Your task to perform on an android device: Clear all items from cart on amazon.com. Add "usb-c" to the cart on amazon.com Image 0: 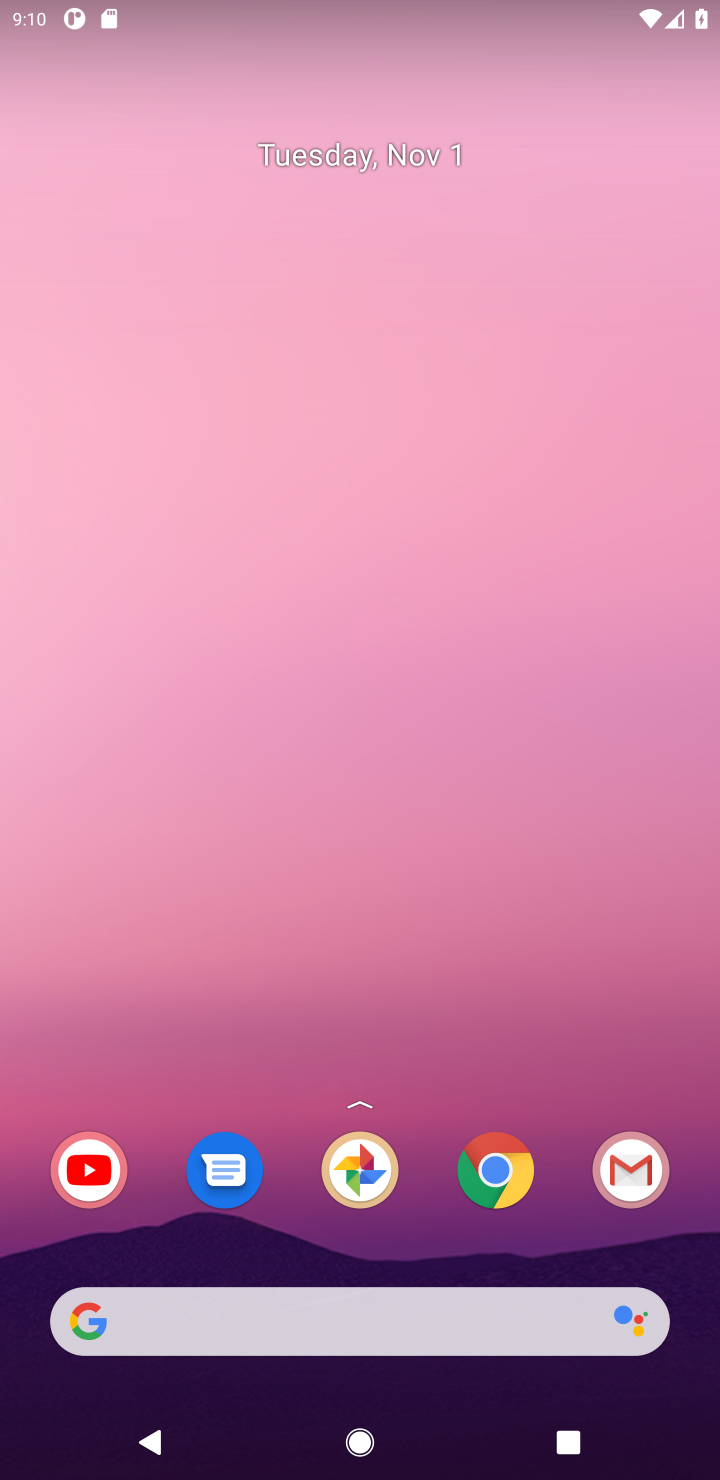
Step 0: click (493, 1173)
Your task to perform on an android device: Clear all items from cart on amazon.com. Add "usb-c" to the cart on amazon.com Image 1: 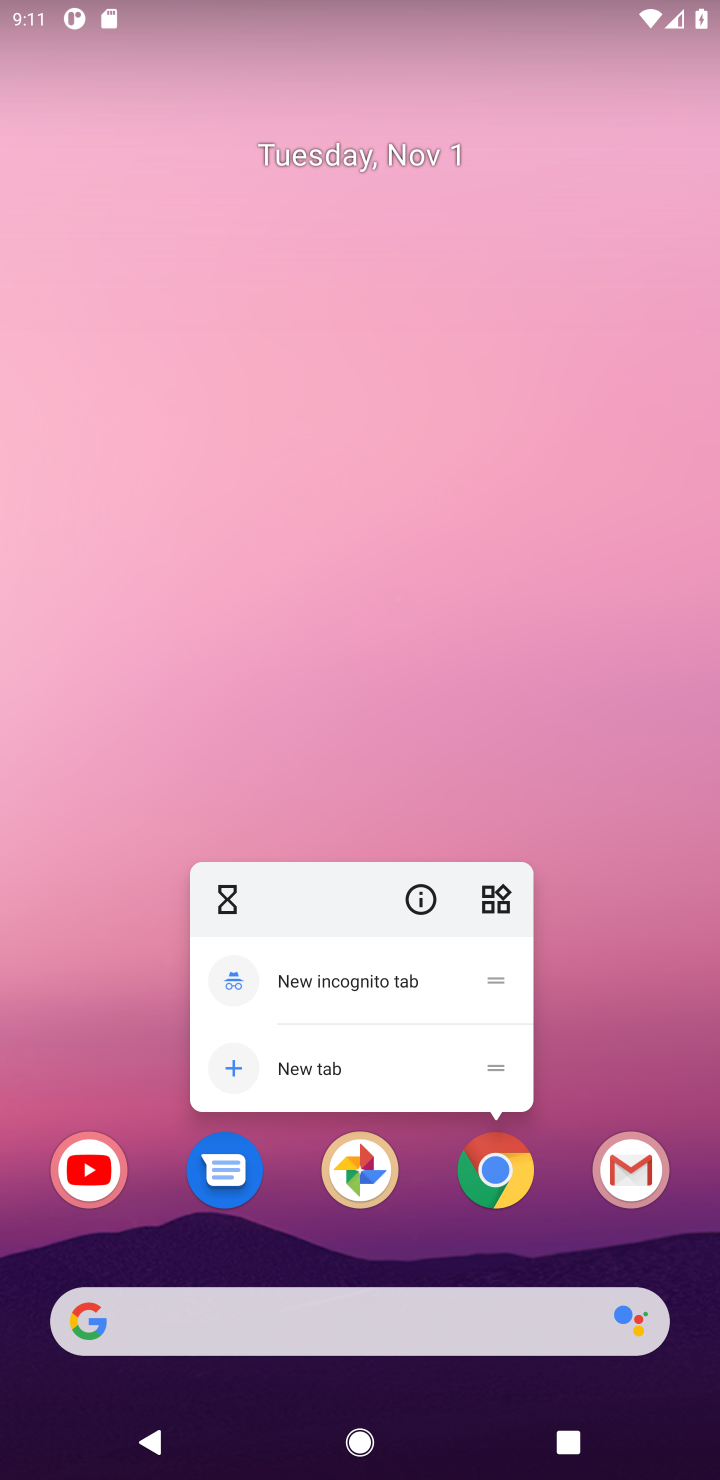
Step 1: click (518, 1167)
Your task to perform on an android device: Clear all items from cart on amazon.com. Add "usb-c" to the cart on amazon.com Image 2: 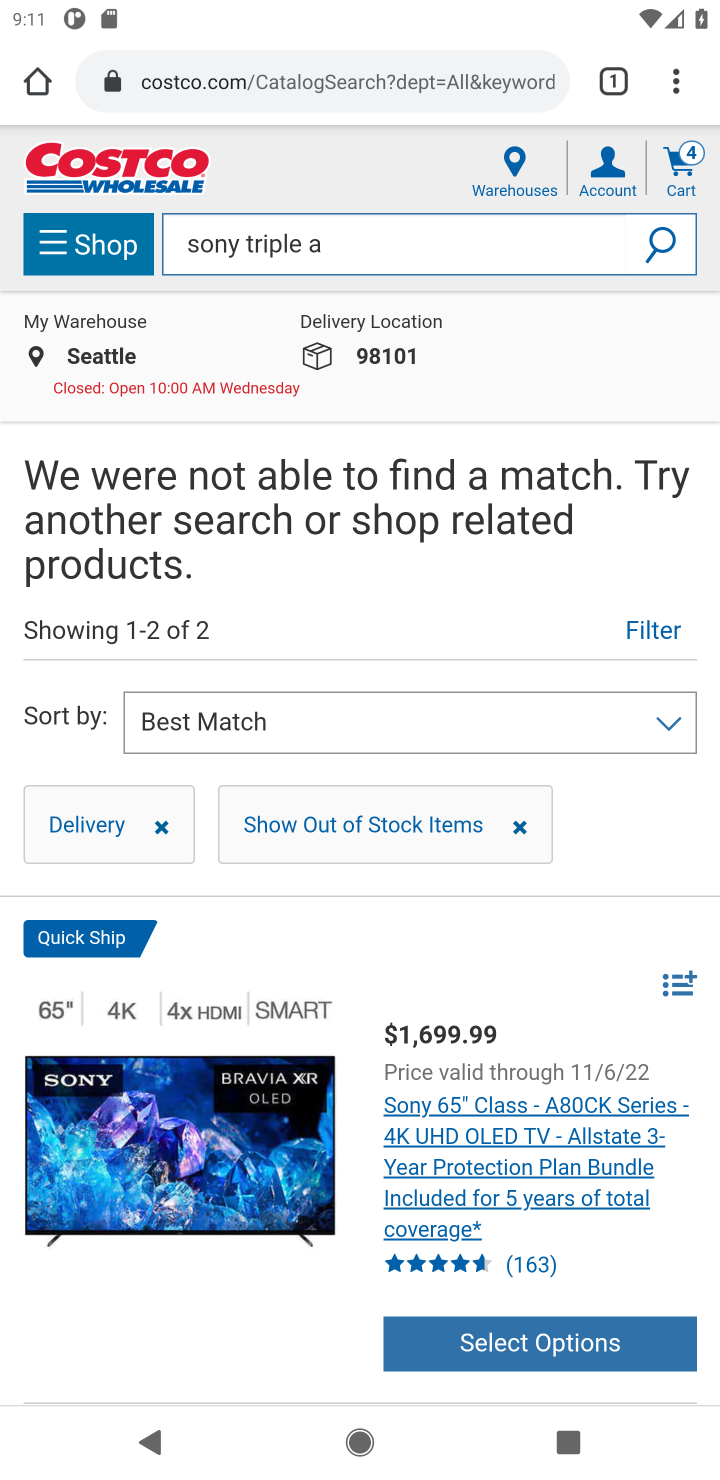
Step 2: click (391, 88)
Your task to perform on an android device: Clear all items from cart on amazon.com. Add "usb-c" to the cart on amazon.com Image 3: 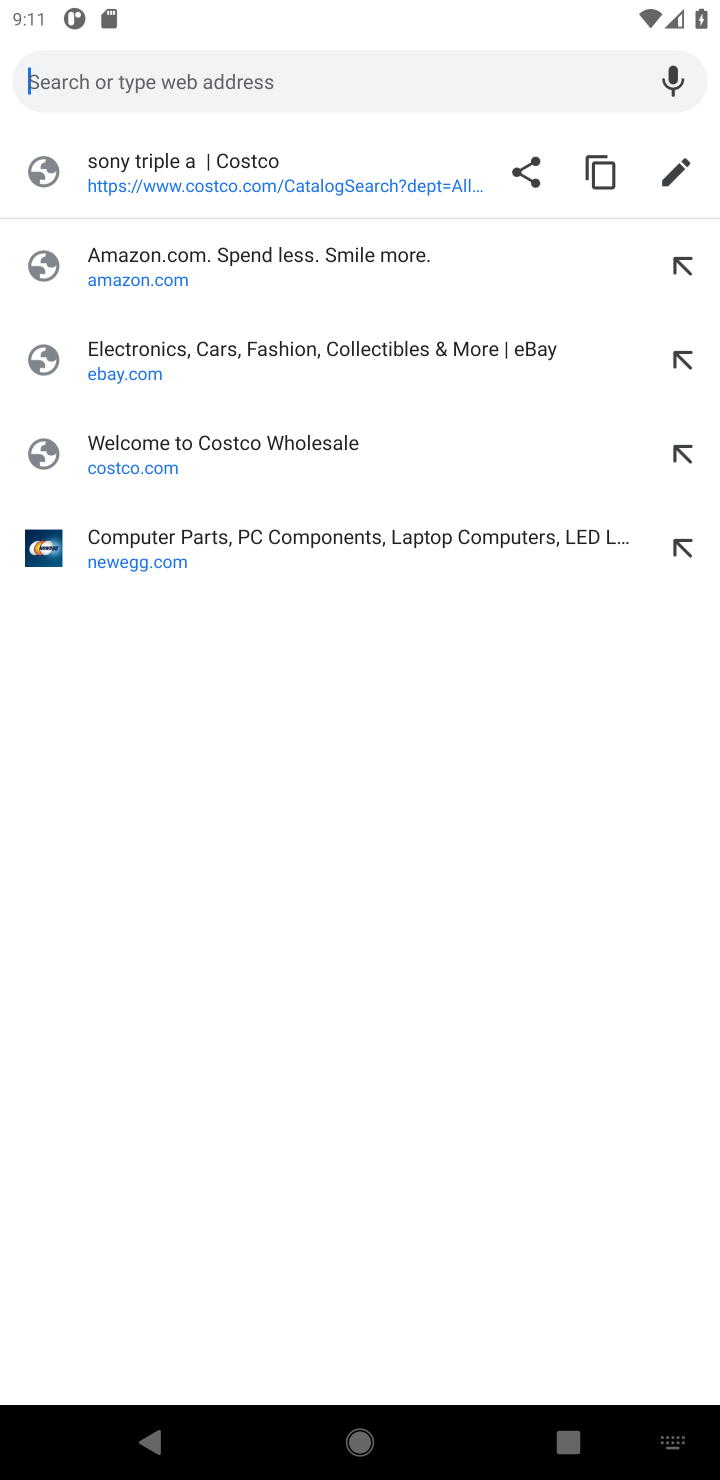
Step 3: type "amazon.com"
Your task to perform on an android device: Clear all items from cart on amazon.com. Add "usb-c" to the cart on amazon.com Image 4: 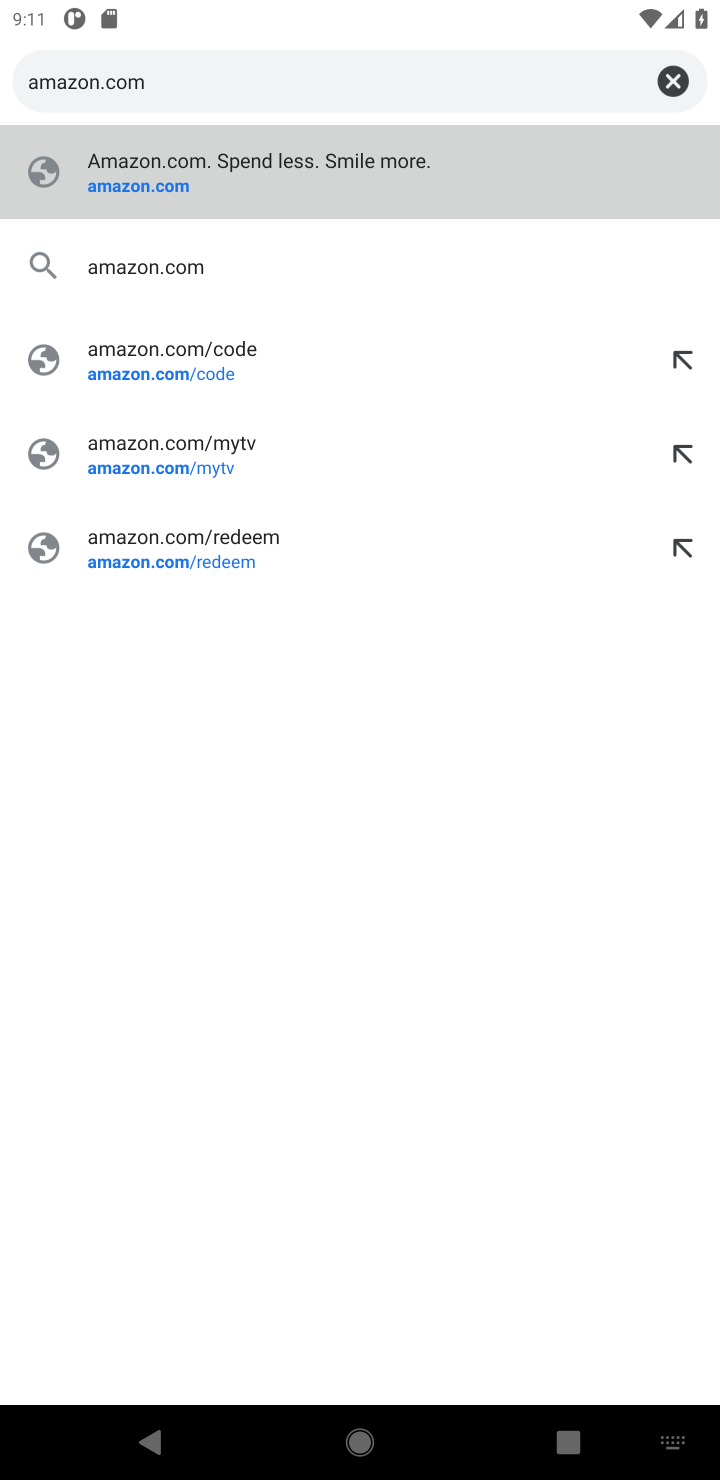
Step 4: press enter
Your task to perform on an android device: Clear all items from cart on amazon.com. Add "usb-c" to the cart on amazon.com Image 5: 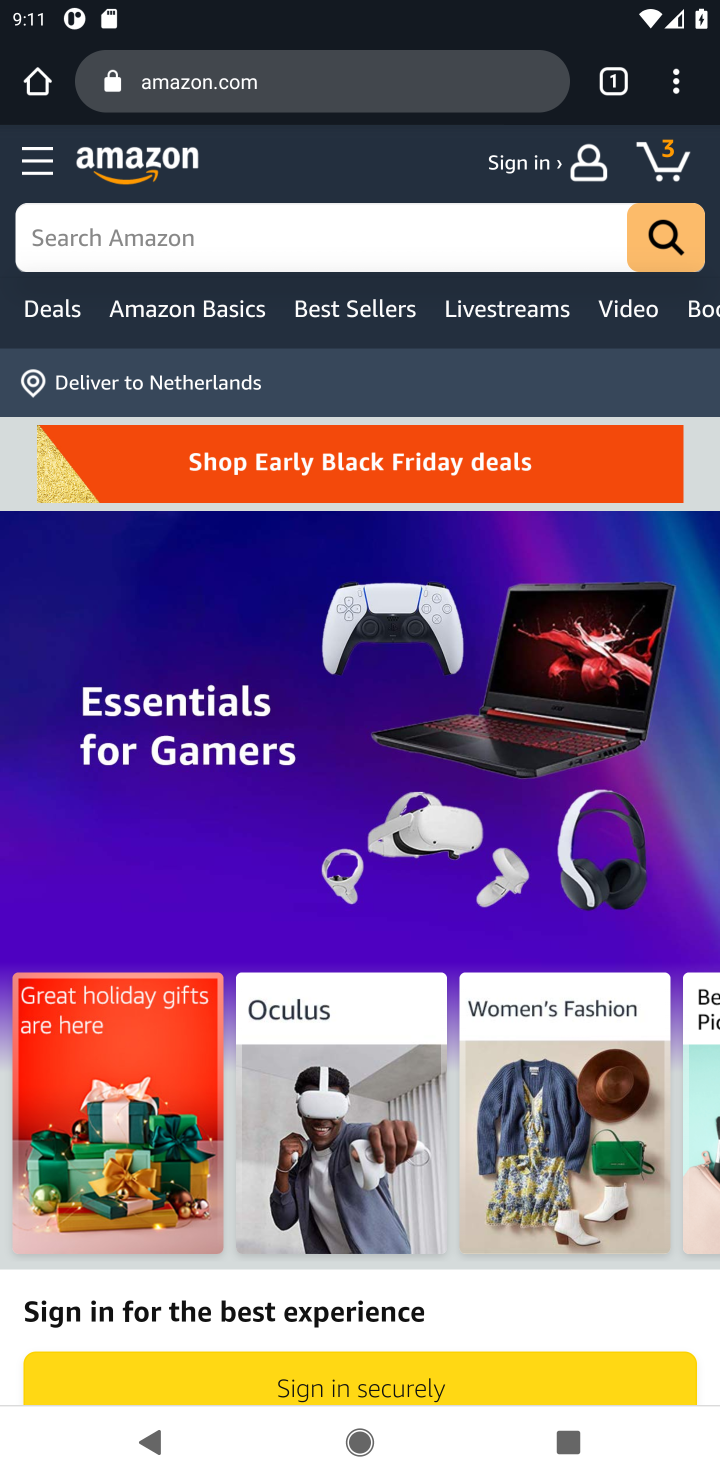
Step 5: click (647, 157)
Your task to perform on an android device: Clear all items from cart on amazon.com. Add "usb-c" to the cart on amazon.com Image 6: 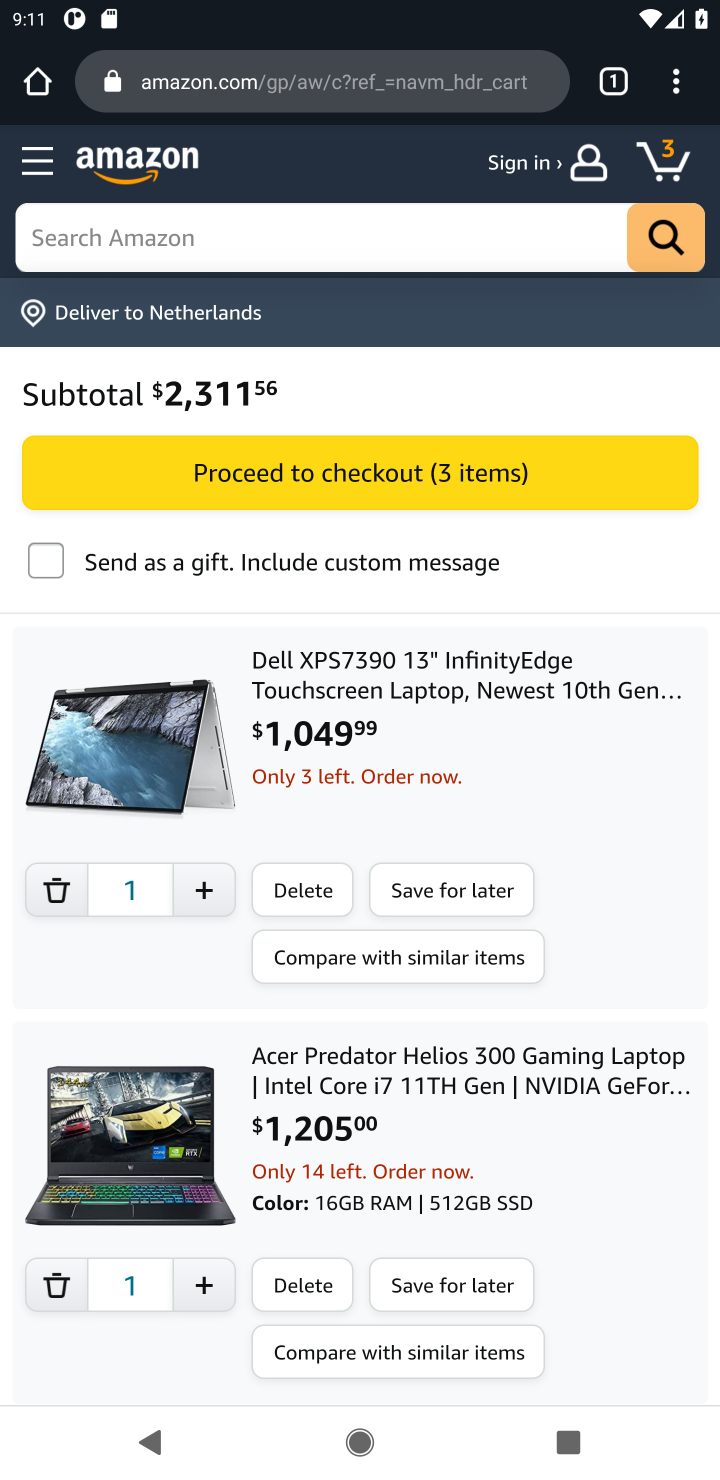
Step 6: click (60, 897)
Your task to perform on an android device: Clear all items from cart on amazon.com. Add "usb-c" to the cart on amazon.com Image 7: 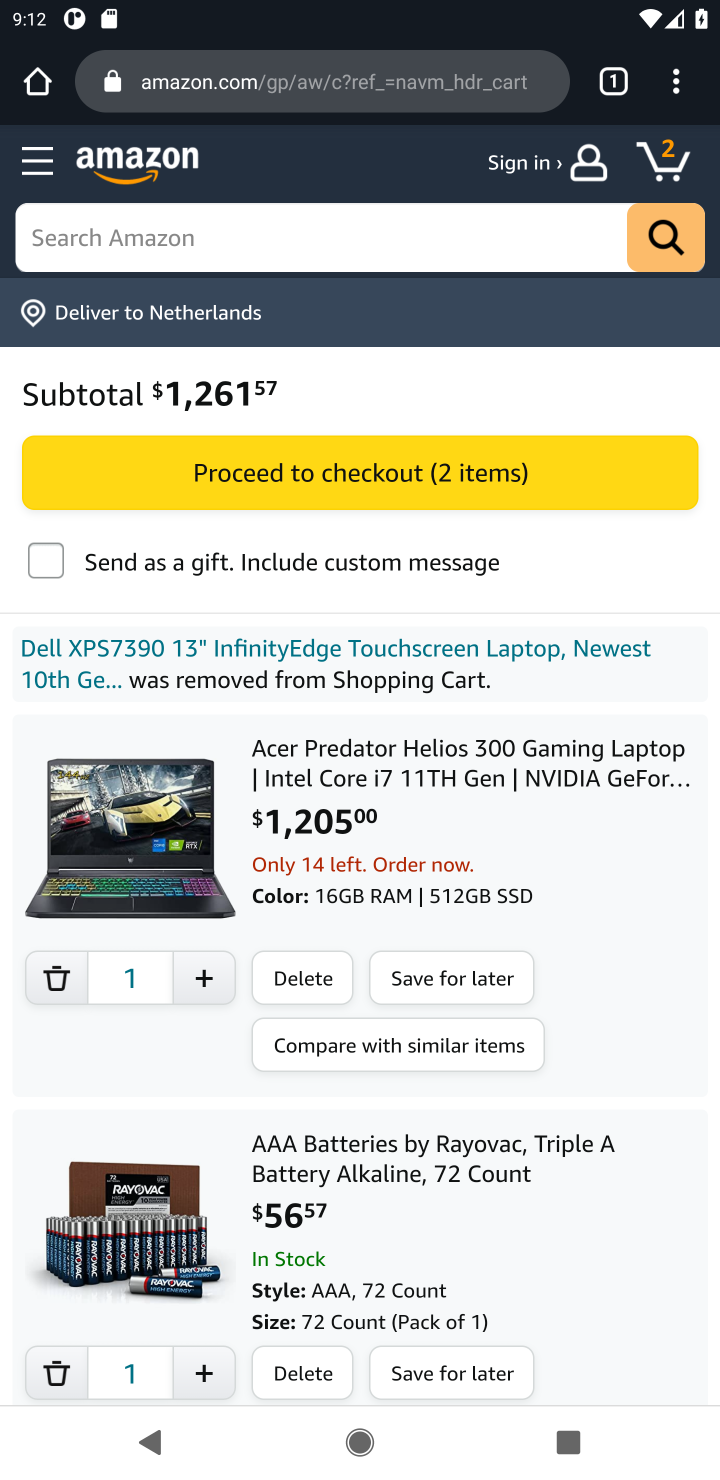
Step 7: click (56, 979)
Your task to perform on an android device: Clear all items from cart on amazon.com. Add "usb-c" to the cart on amazon.com Image 8: 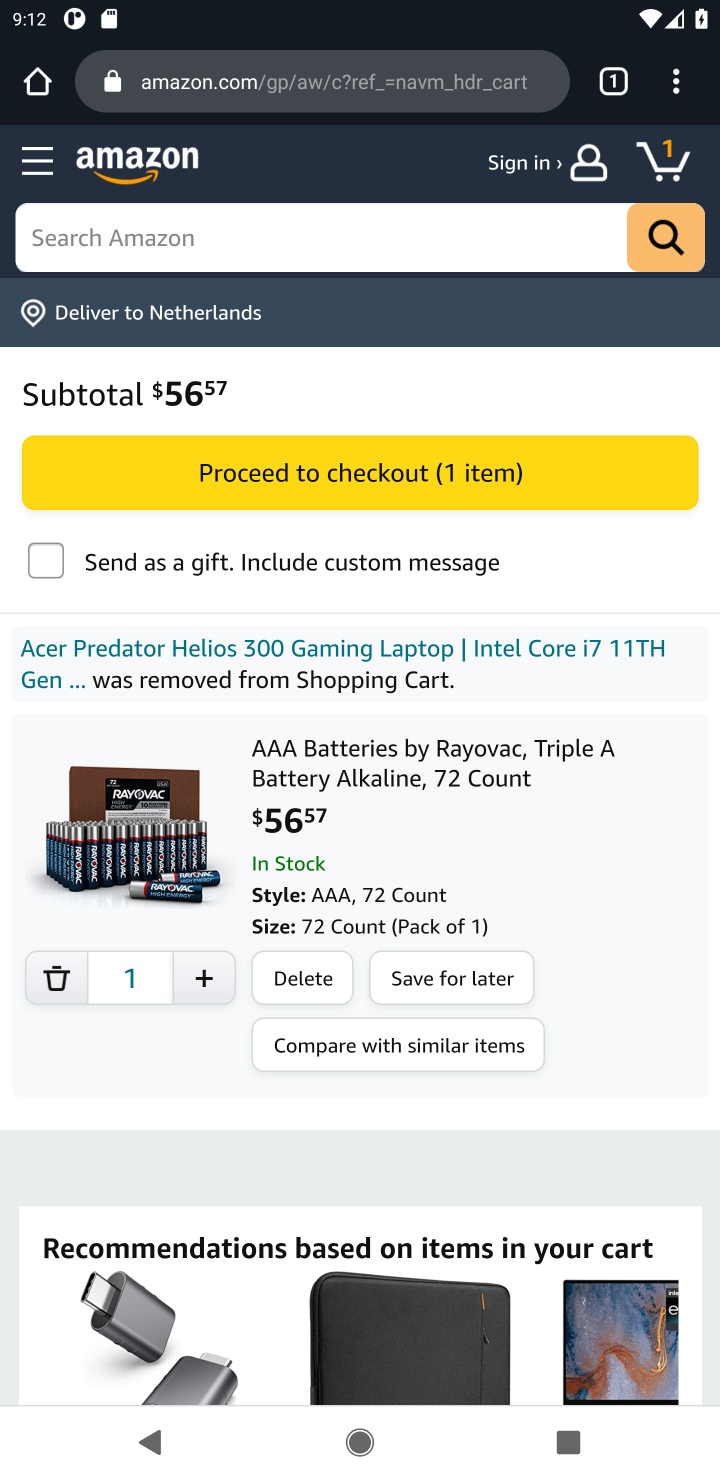
Step 8: click (66, 982)
Your task to perform on an android device: Clear all items from cart on amazon.com. Add "usb-c" to the cart on amazon.com Image 9: 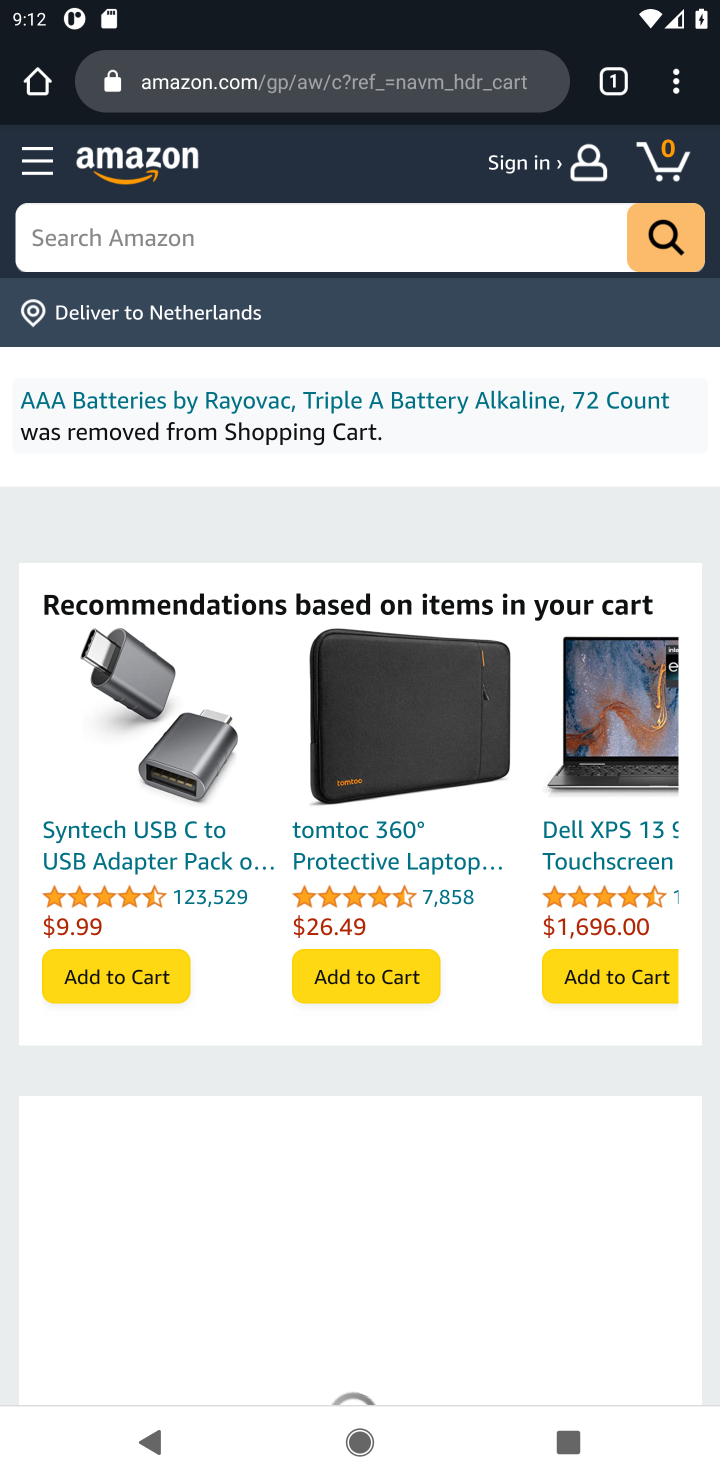
Step 9: click (317, 236)
Your task to perform on an android device: Clear all items from cart on amazon.com. Add "usb-c" to the cart on amazon.com Image 10: 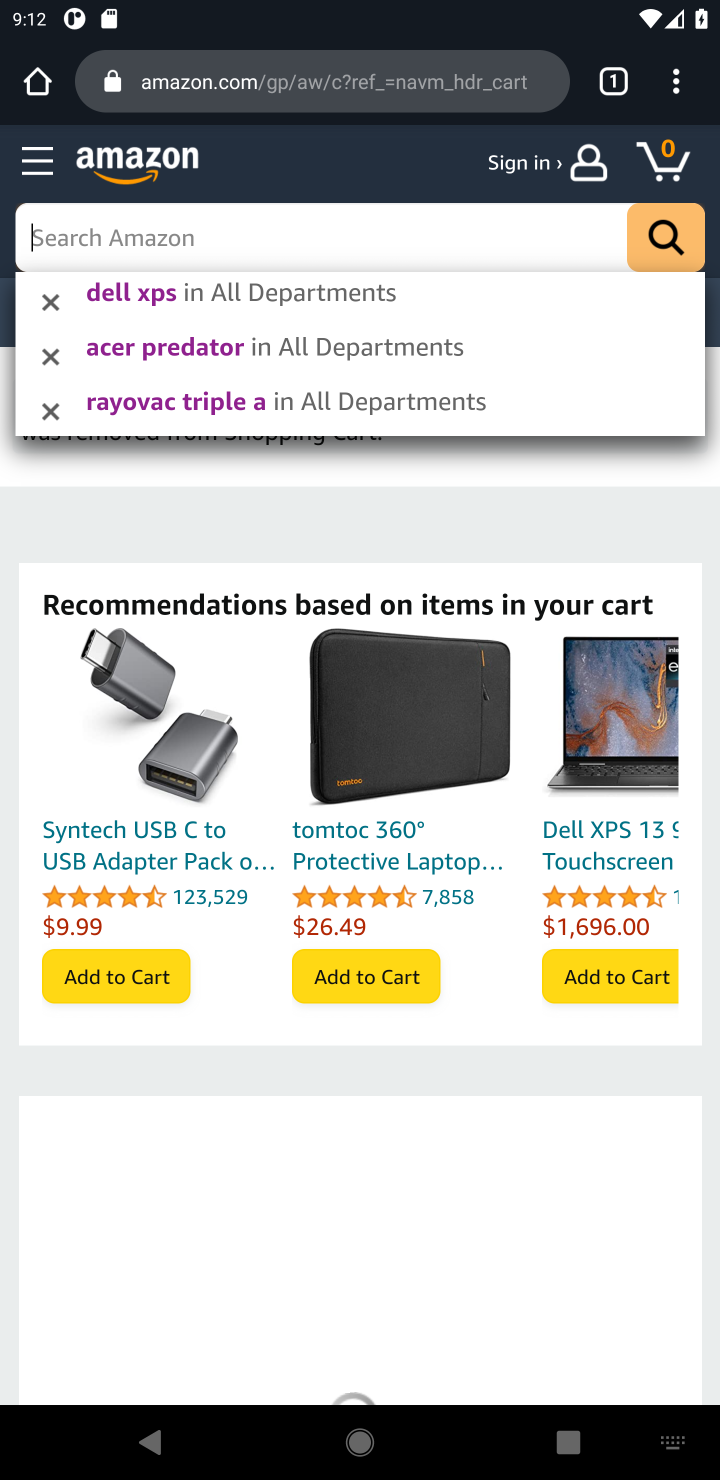
Step 10: type "usb-c"
Your task to perform on an android device: Clear all items from cart on amazon.com. Add "usb-c" to the cart on amazon.com Image 11: 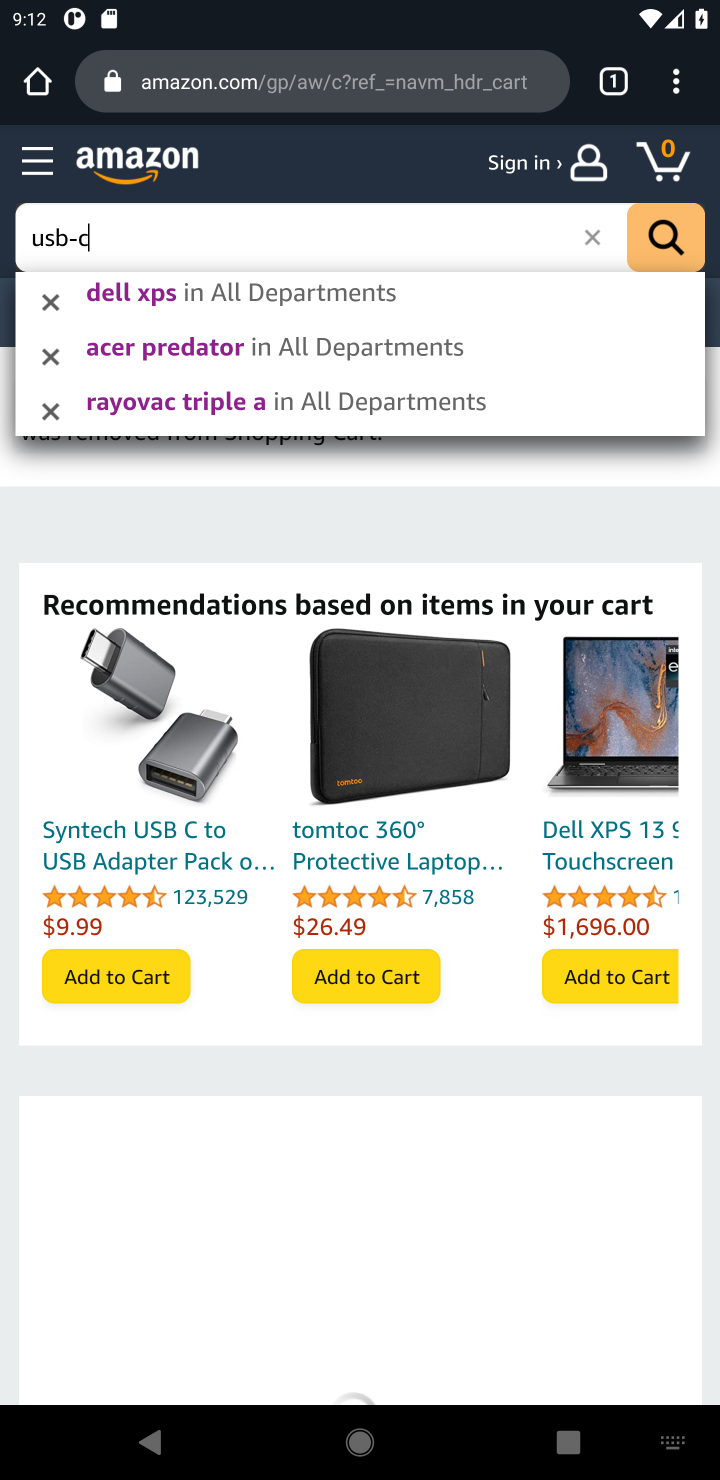
Step 11: type ""
Your task to perform on an android device: Clear all items from cart on amazon.com. Add "usb-c" to the cart on amazon.com Image 12: 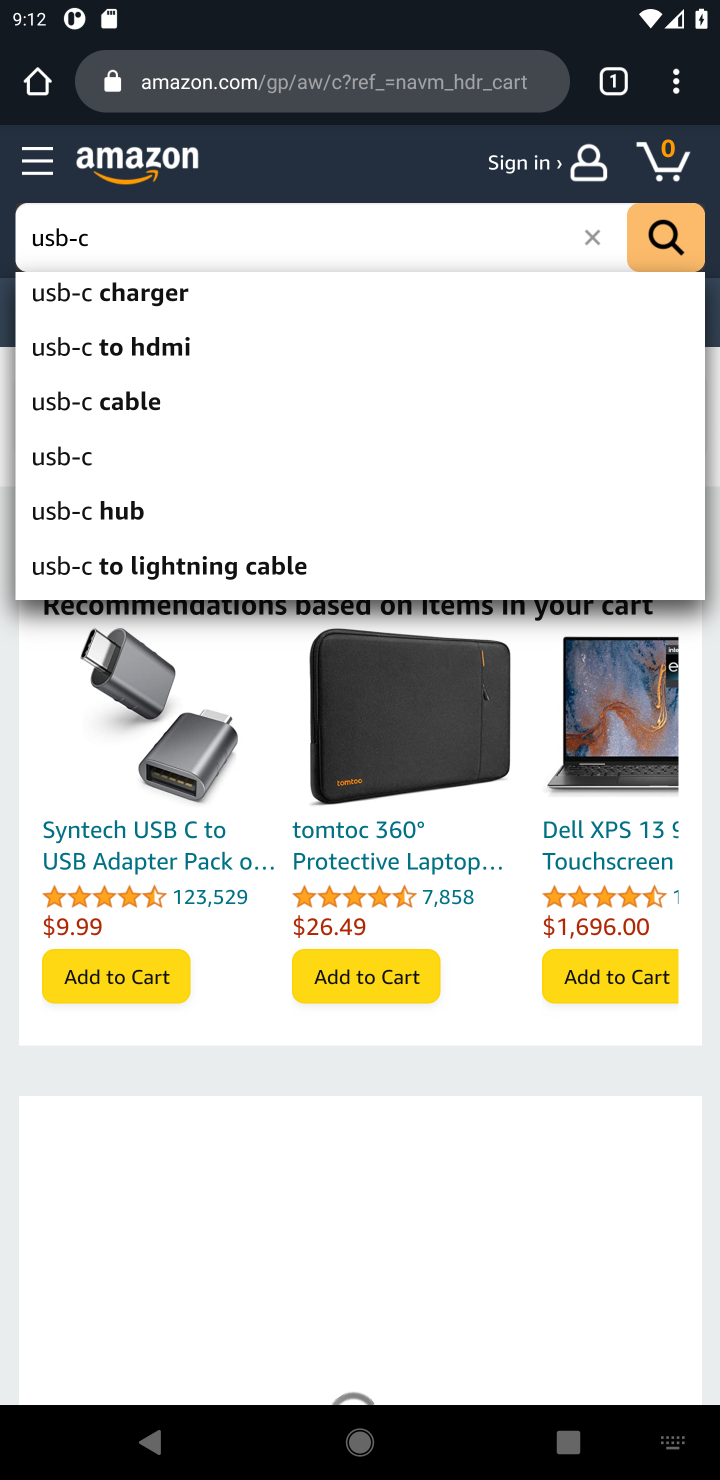
Step 12: press enter
Your task to perform on an android device: Clear all items from cart on amazon.com. Add "usb-c" to the cart on amazon.com Image 13: 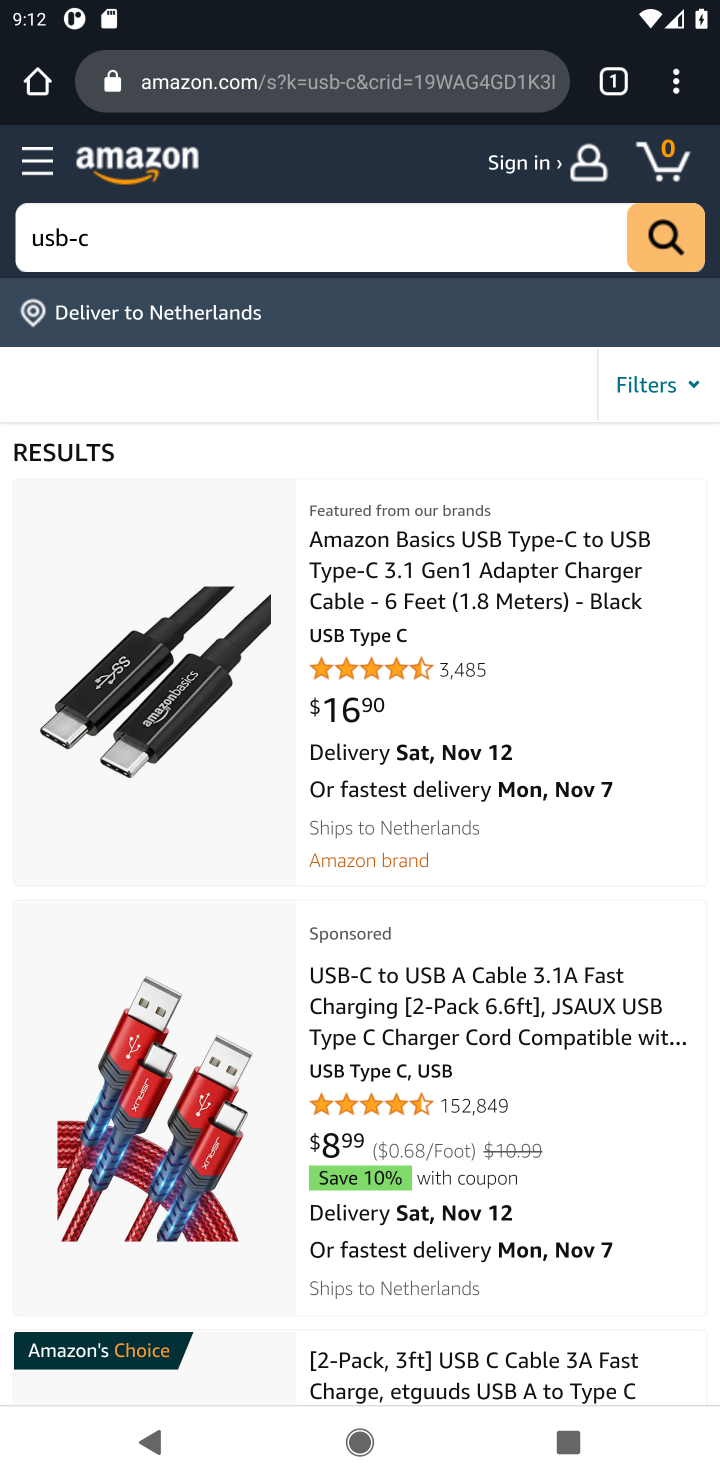
Step 13: click (499, 605)
Your task to perform on an android device: Clear all items from cart on amazon.com. Add "usb-c" to the cart on amazon.com Image 14: 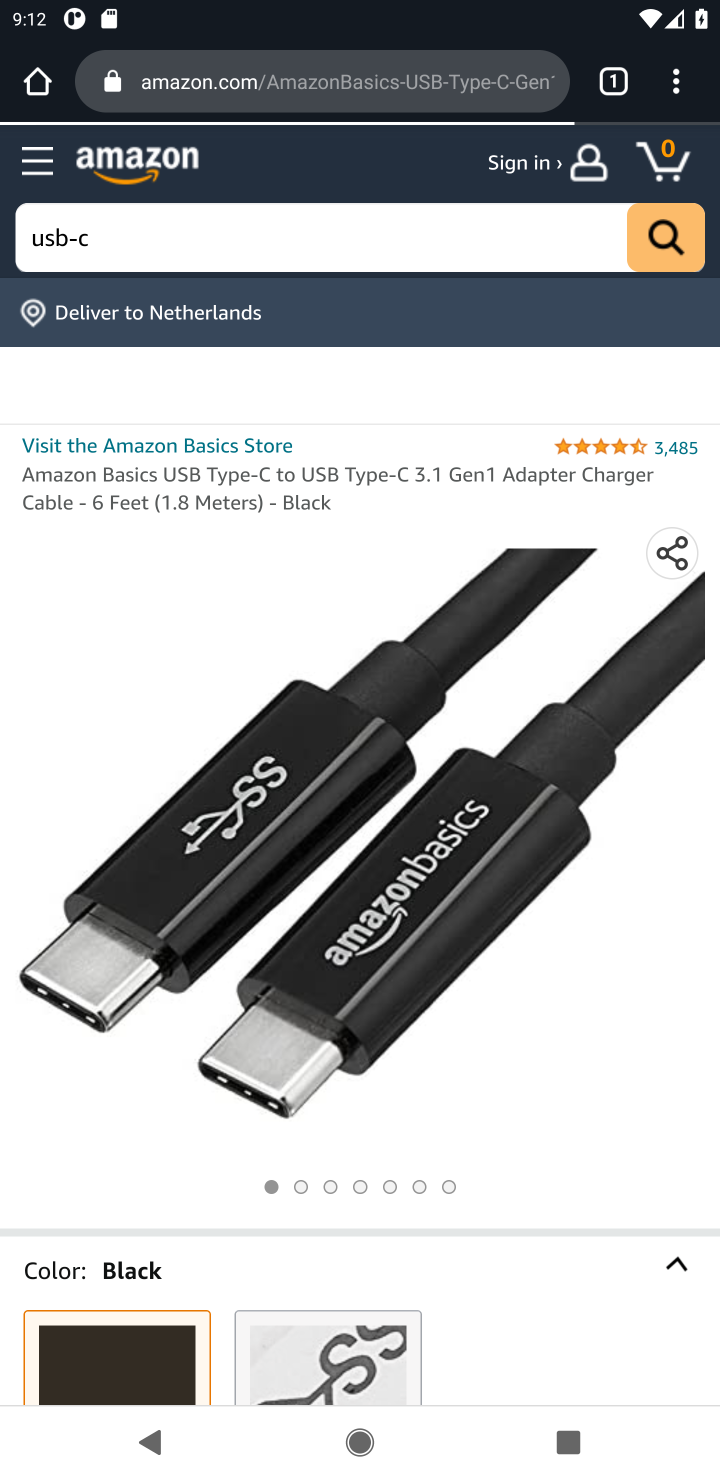
Step 14: drag from (571, 1162) to (568, 519)
Your task to perform on an android device: Clear all items from cart on amazon.com. Add "usb-c" to the cart on amazon.com Image 15: 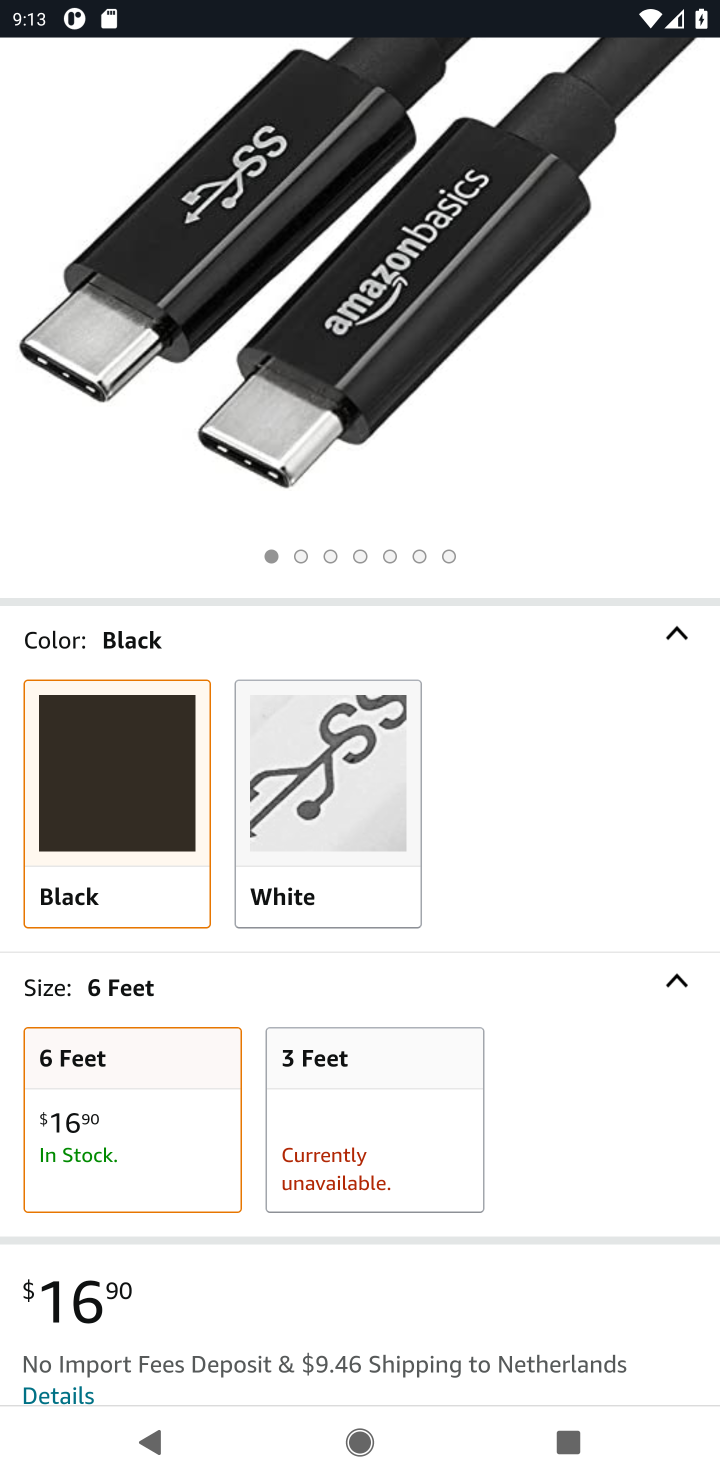
Step 15: drag from (574, 1237) to (563, 569)
Your task to perform on an android device: Clear all items from cart on amazon.com. Add "usb-c" to the cart on amazon.com Image 16: 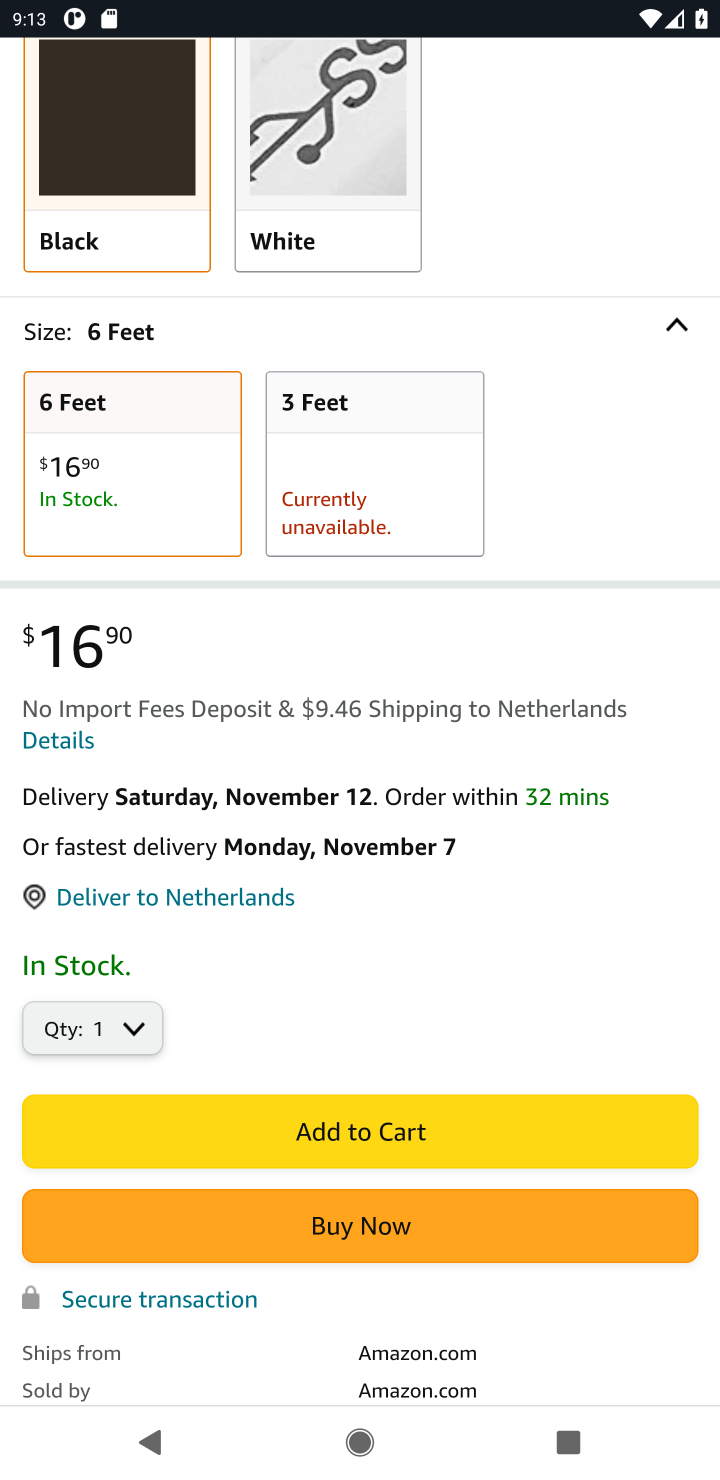
Step 16: click (361, 1125)
Your task to perform on an android device: Clear all items from cart on amazon.com. Add "usb-c" to the cart on amazon.com Image 17: 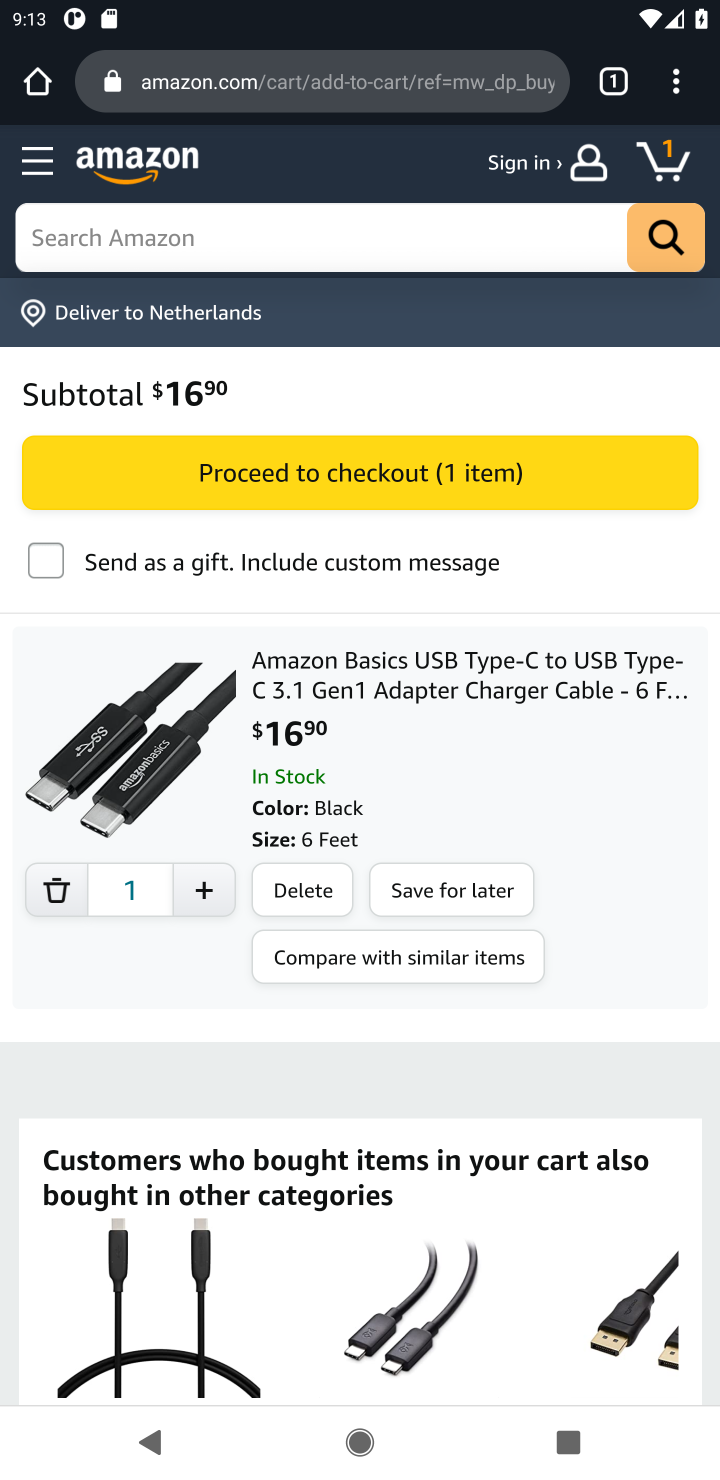
Step 17: click (307, 475)
Your task to perform on an android device: Clear all items from cart on amazon.com. Add "usb-c" to the cart on amazon.com Image 18: 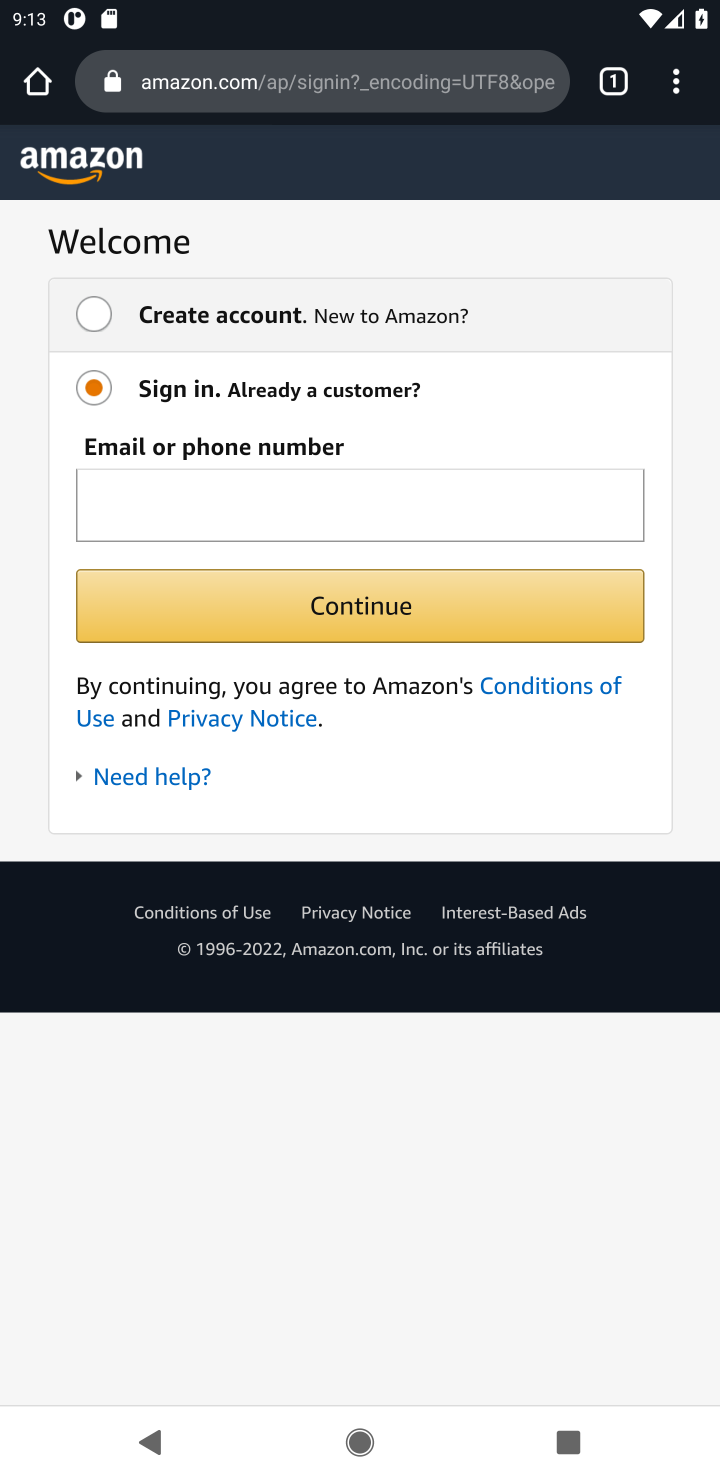
Step 18: task complete